Your task to perform on an android device: Clear the cart on ebay. Image 0: 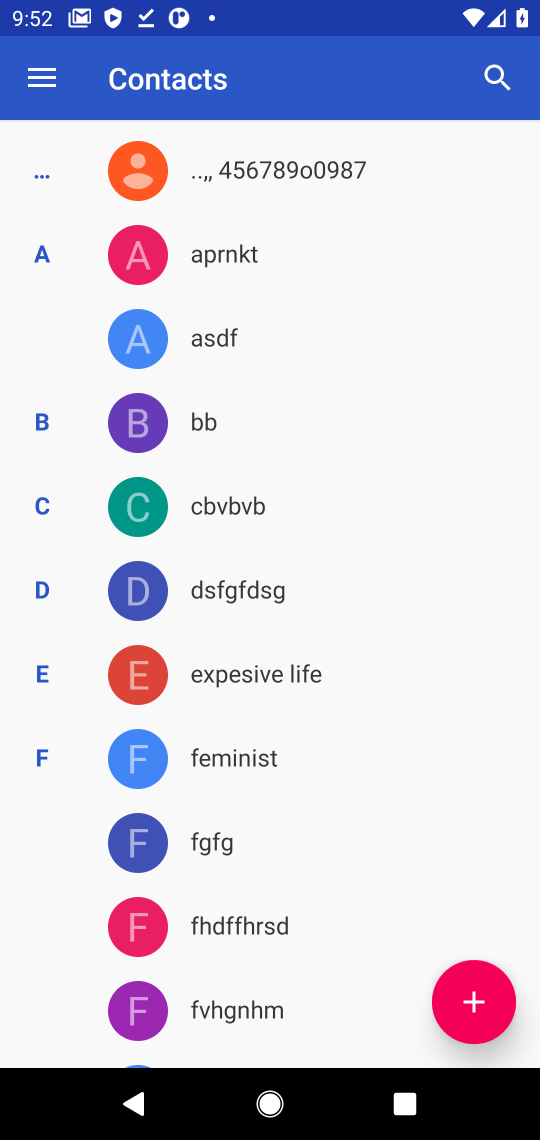
Step 0: press home button
Your task to perform on an android device: Clear the cart on ebay. Image 1: 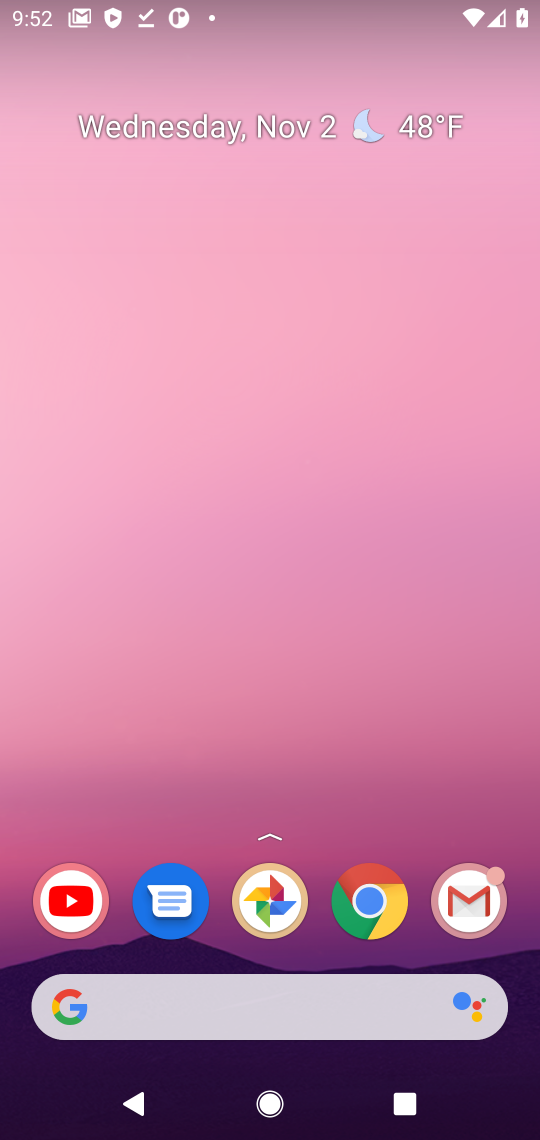
Step 1: click (391, 902)
Your task to perform on an android device: Clear the cart on ebay. Image 2: 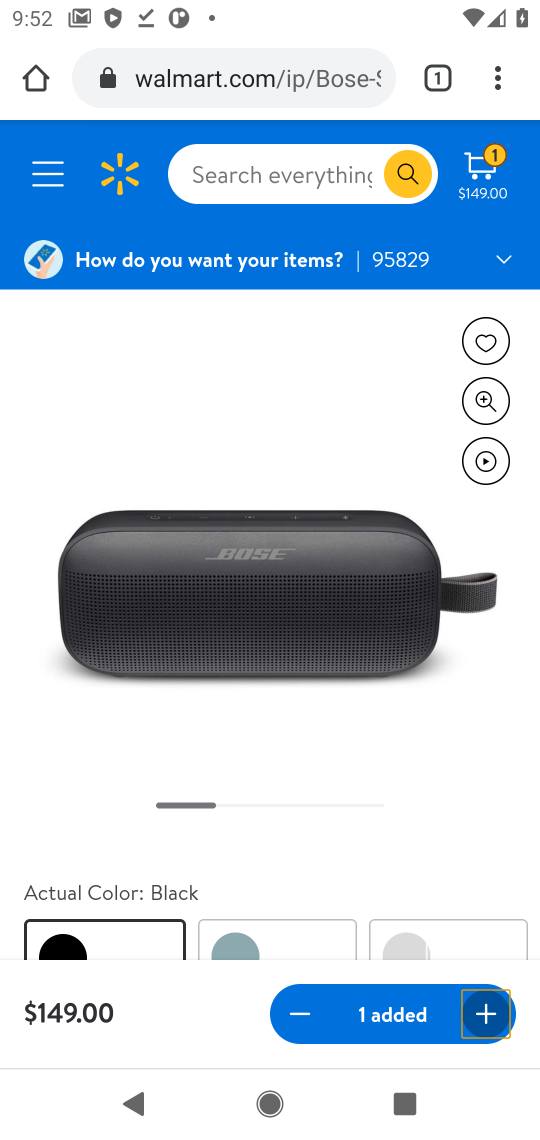
Step 2: click (280, 84)
Your task to perform on an android device: Clear the cart on ebay. Image 3: 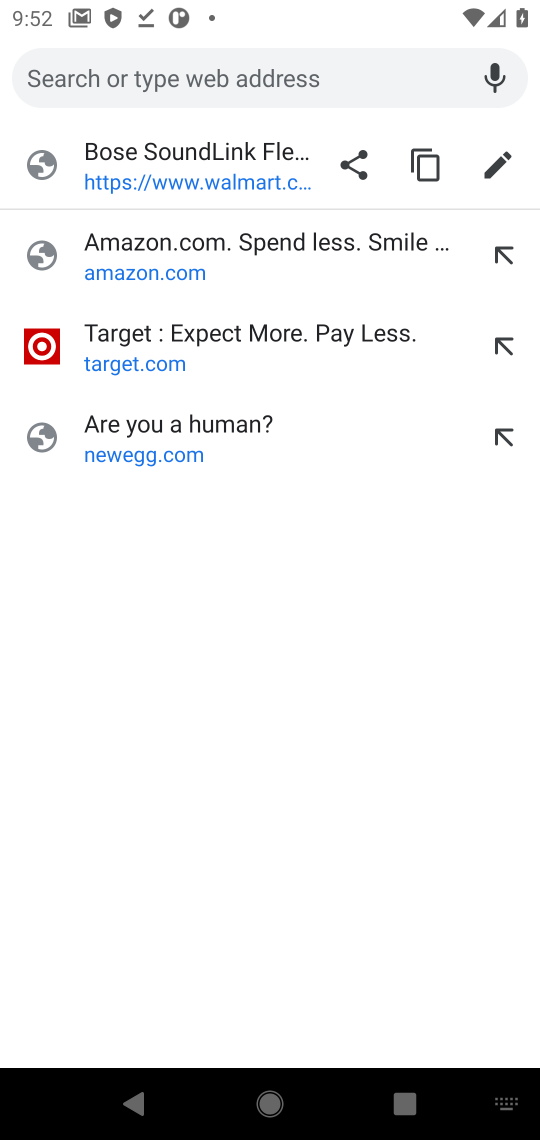
Step 3: type "ebay"
Your task to perform on an android device: Clear the cart on ebay. Image 4: 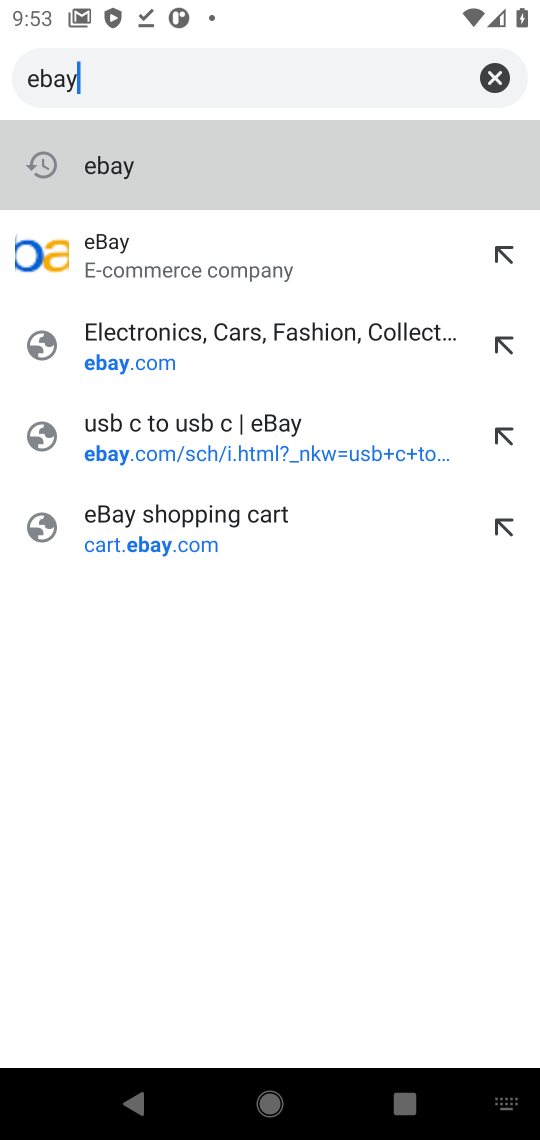
Step 4: click (110, 173)
Your task to perform on an android device: Clear the cart on ebay. Image 5: 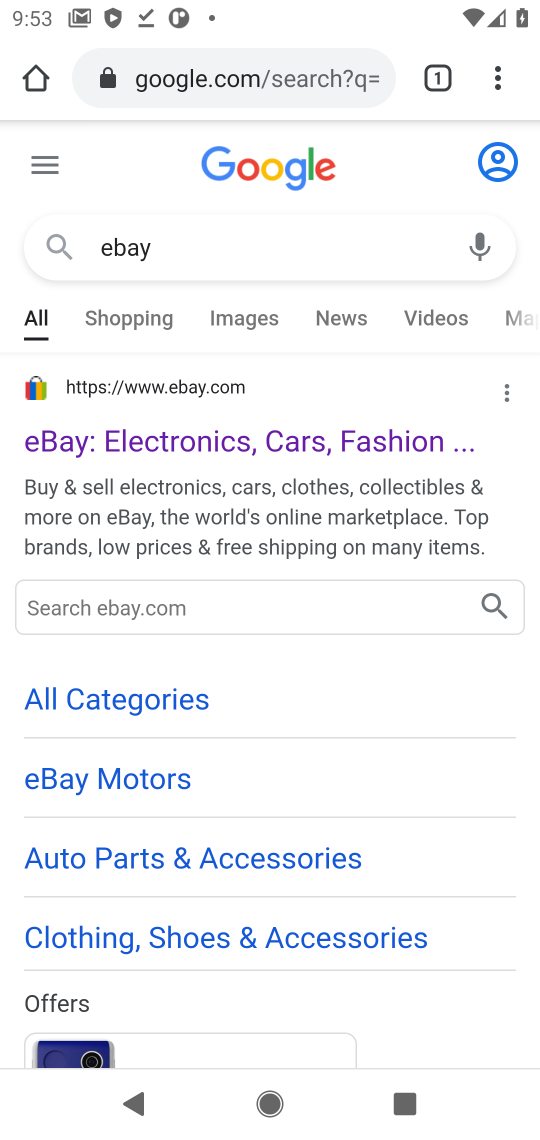
Step 5: click (117, 444)
Your task to perform on an android device: Clear the cart on ebay. Image 6: 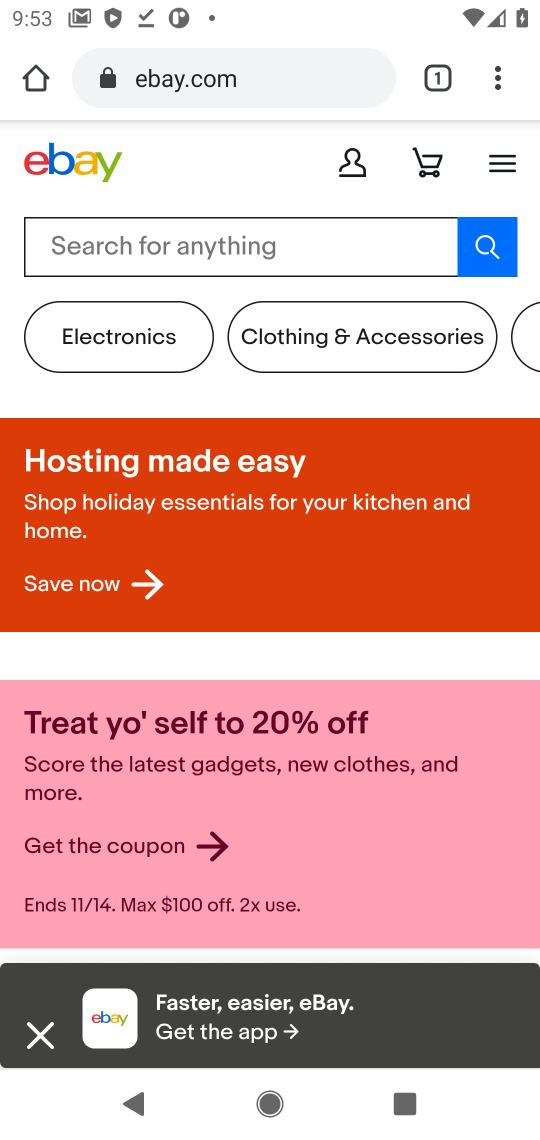
Step 6: click (434, 158)
Your task to perform on an android device: Clear the cart on ebay. Image 7: 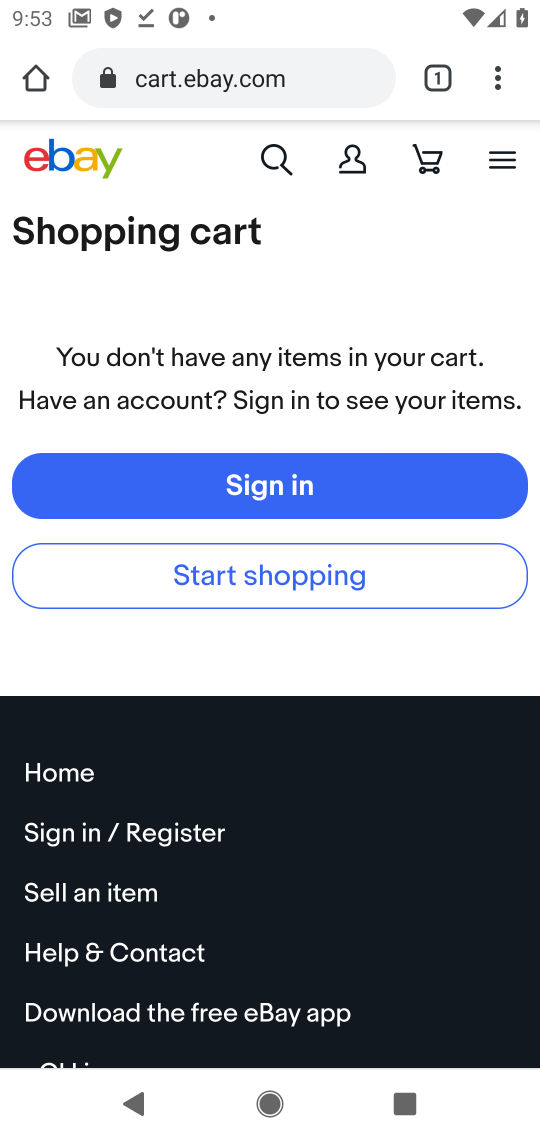
Step 7: task complete